Your task to perform on an android device: Open calendar and show me the third week of next month Image 0: 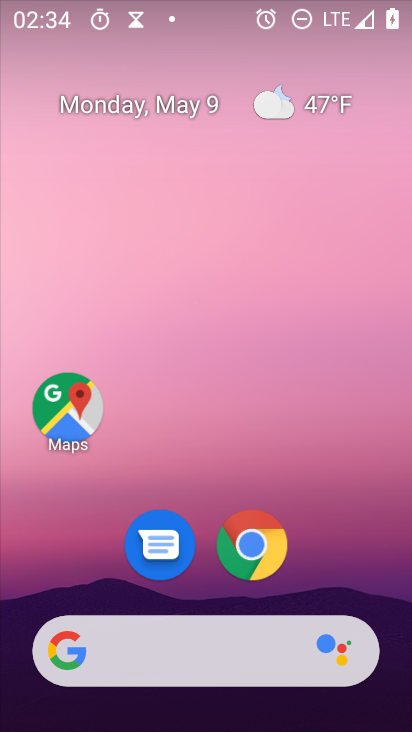
Step 0: drag from (316, 620) to (256, 20)
Your task to perform on an android device: Open calendar and show me the third week of next month Image 1: 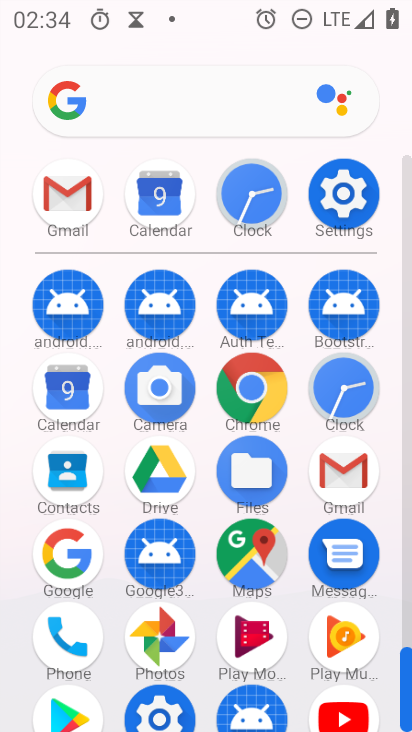
Step 1: click (55, 379)
Your task to perform on an android device: Open calendar and show me the third week of next month Image 2: 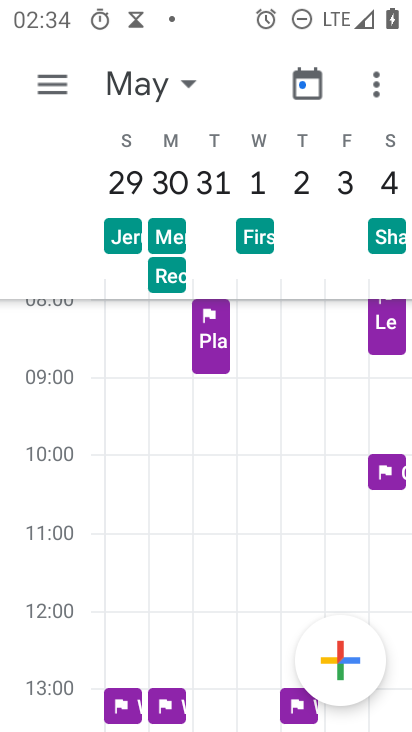
Step 2: click (179, 85)
Your task to perform on an android device: Open calendar and show me the third week of next month Image 3: 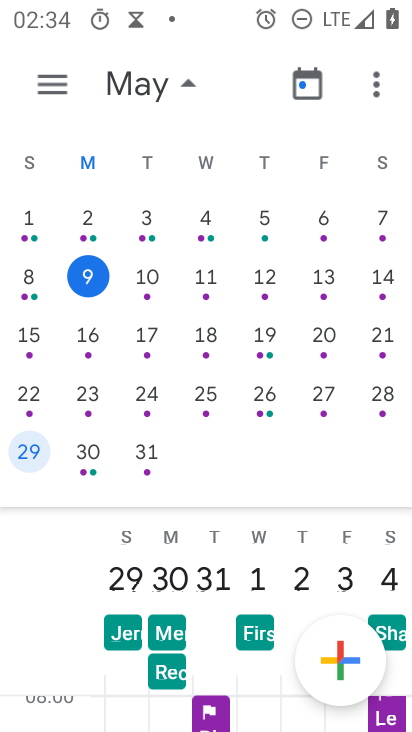
Step 3: drag from (335, 361) to (1, 354)
Your task to perform on an android device: Open calendar and show me the third week of next month Image 4: 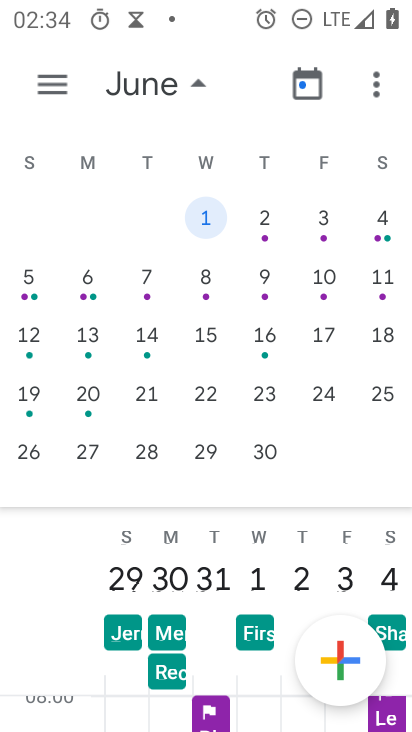
Step 4: click (326, 342)
Your task to perform on an android device: Open calendar and show me the third week of next month Image 5: 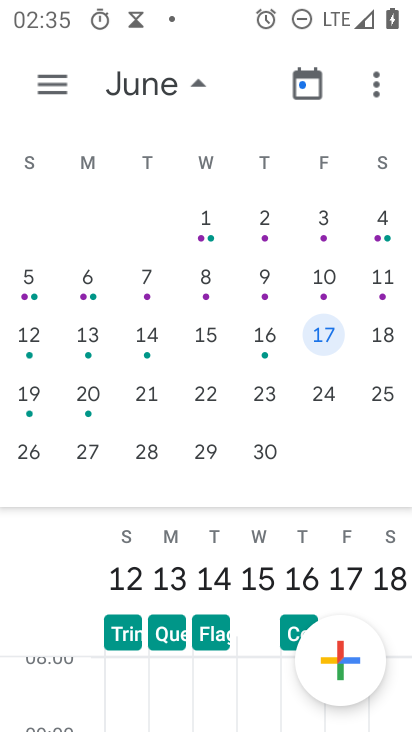
Step 5: task complete